Your task to perform on an android device: Go to Yahoo.com Image 0: 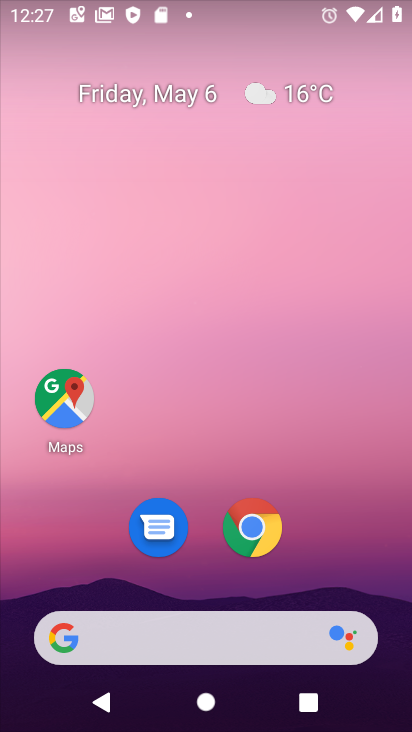
Step 0: click (256, 534)
Your task to perform on an android device: Go to Yahoo.com Image 1: 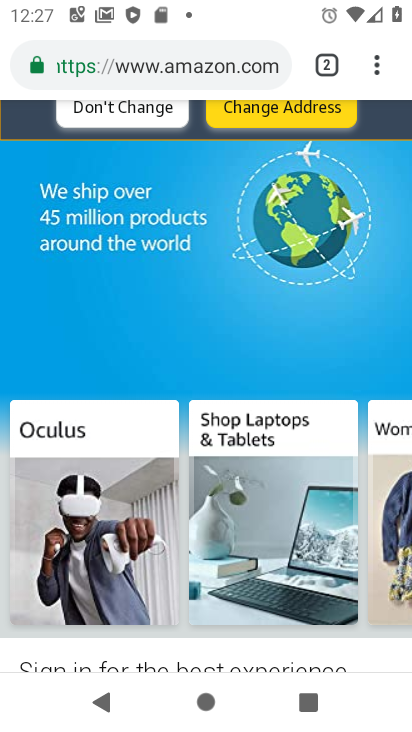
Step 1: click (329, 62)
Your task to perform on an android device: Go to Yahoo.com Image 2: 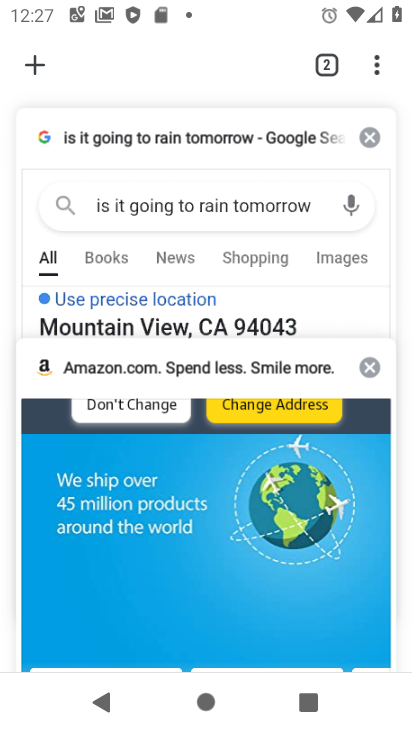
Step 2: click (37, 65)
Your task to perform on an android device: Go to Yahoo.com Image 3: 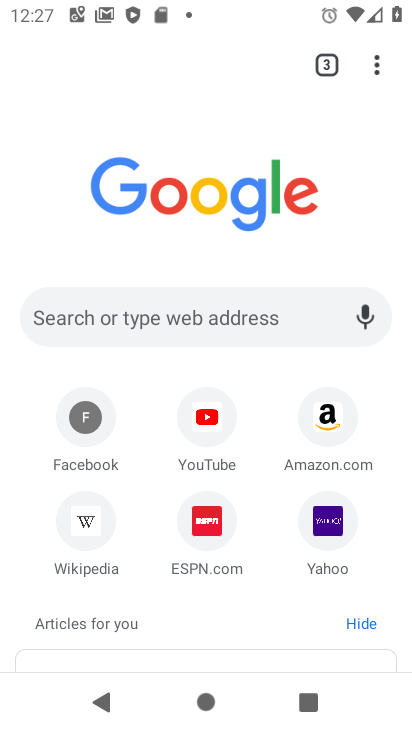
Step 3: click (325, 529)
Your task to perform on an android device: Go to Yahoo.com Image 4: 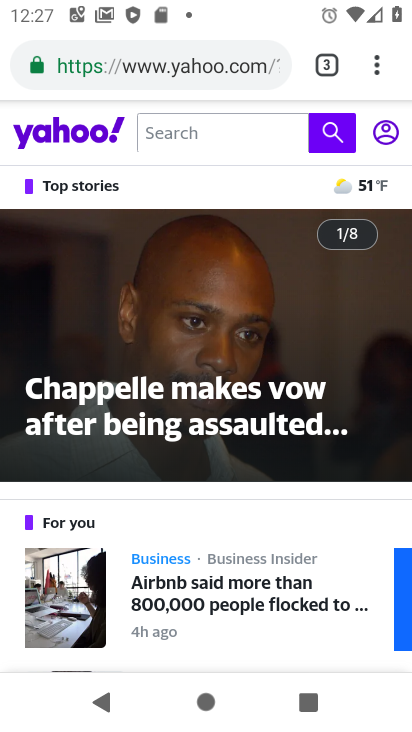
Step 4: task complete